Your task to perform on an android device: Turn off the flashlight Image 0: 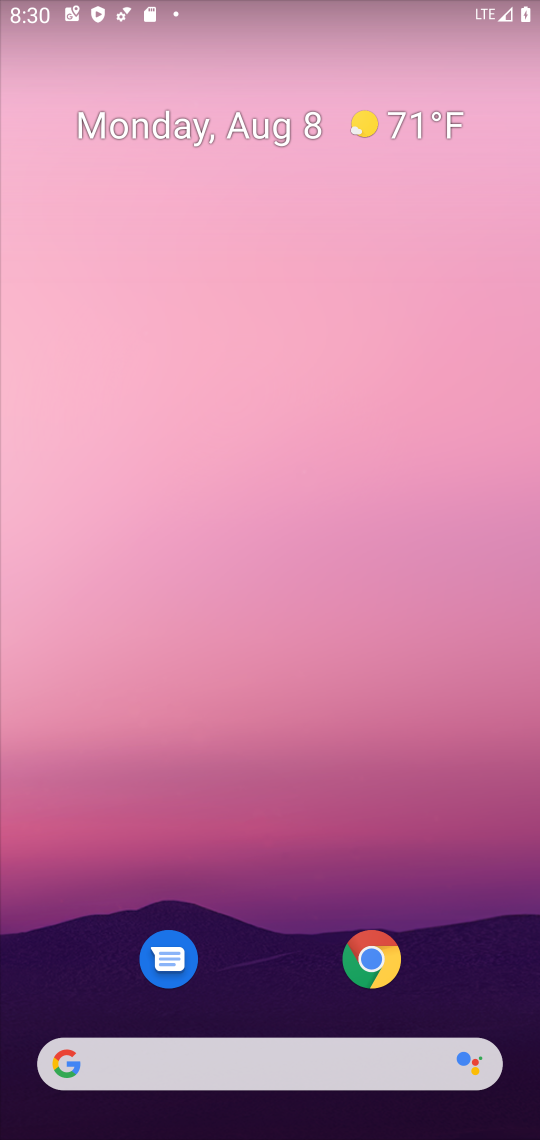
Step 0: click (280, 1)
Your task to perform on an android device: Turn off the flashlight Image 1: 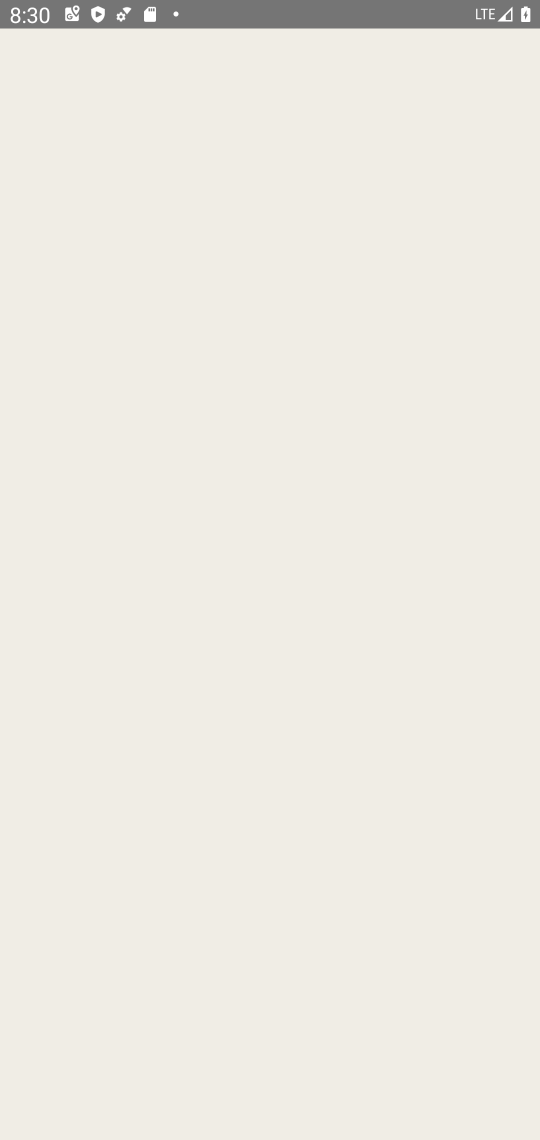
Step 1: task complete